Your task to perform on an android device: turn off data saver in the chrome app Image 0: 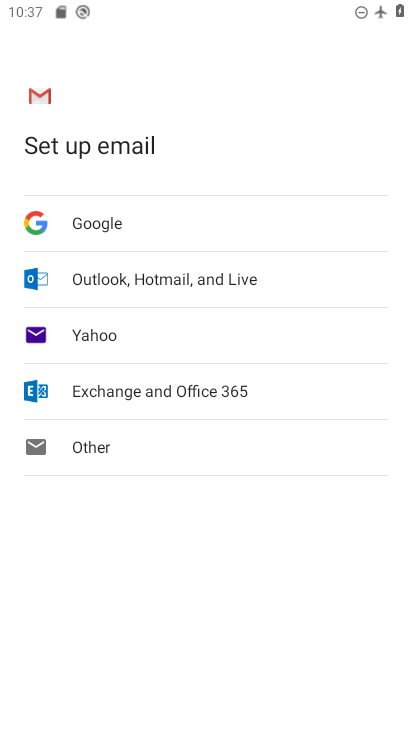
Step 0: drag from (263, 587) to (304, 277)
Your task to perform on an android device: turn off data saver in the chrome app Image 1: 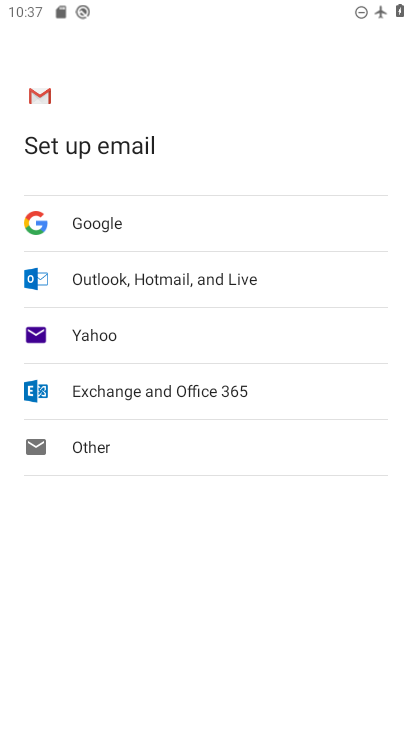
Step 1: press home button
Your task to perform on an android device: turn off data saver in the chrome app Image 2: 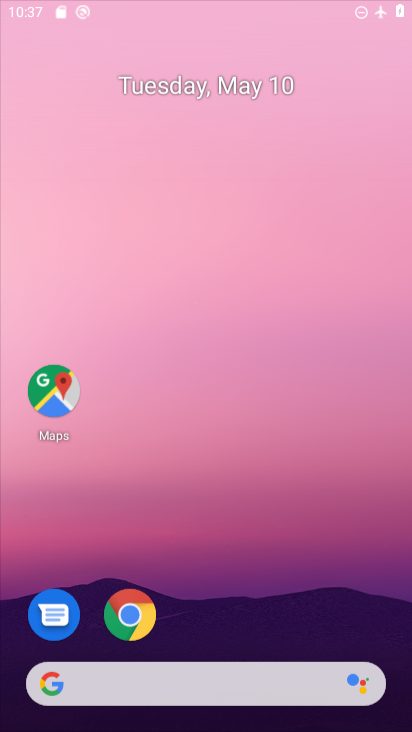
Step 2: drag from (193, 643) to (297, 165)
Your task to perform on an android device: turn off data saver in the chrome app Image 3: 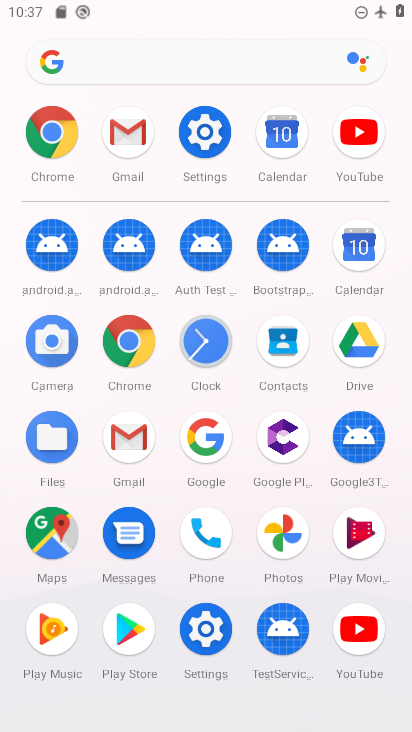
Step 3: click (135, 332)
Your task to perform on an android device: turn off data saver in the chrome app Image 4: 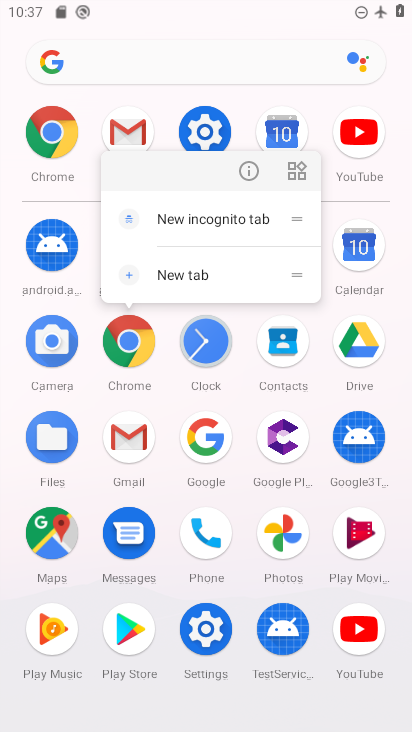
Step 4: click (244, 165)
Your task to perform on an android device: turn off data saver in the chrome app Image 5: 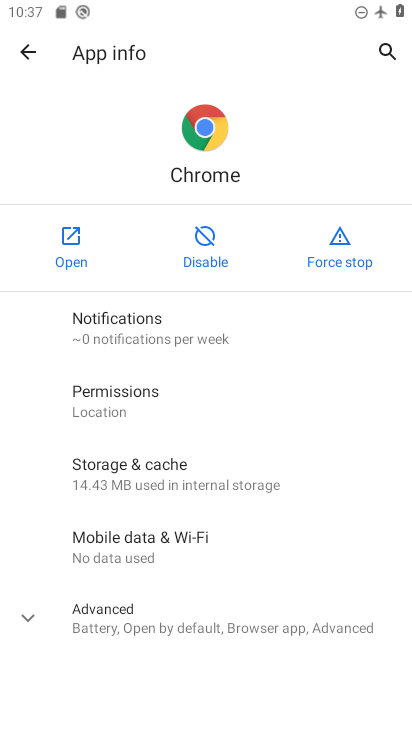
Step 5: click (78, 249)
Your task to perform on an android device: turn off data saver in the chrome app Image 6: 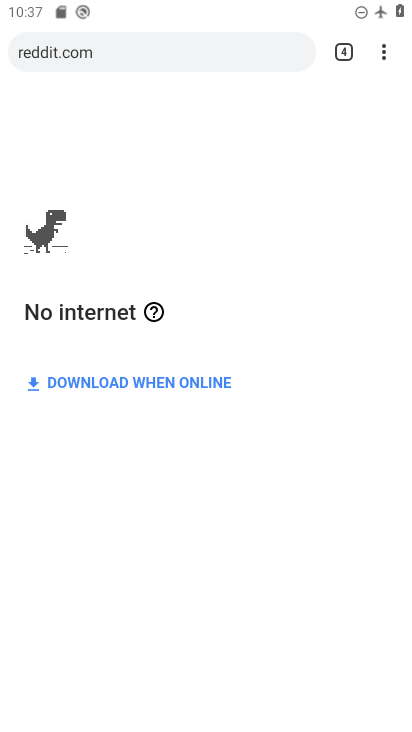
Step 6: click (381, 52)
Your task to perform on an android device: turn off data saver in the chrome app Image 7: 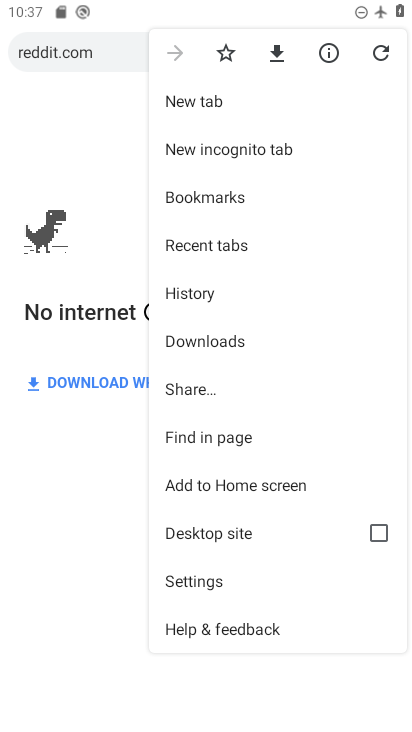
Step 7: click (210, 577)
Your task to perform on an android device: turn off data saver in the chrome app Image 8: 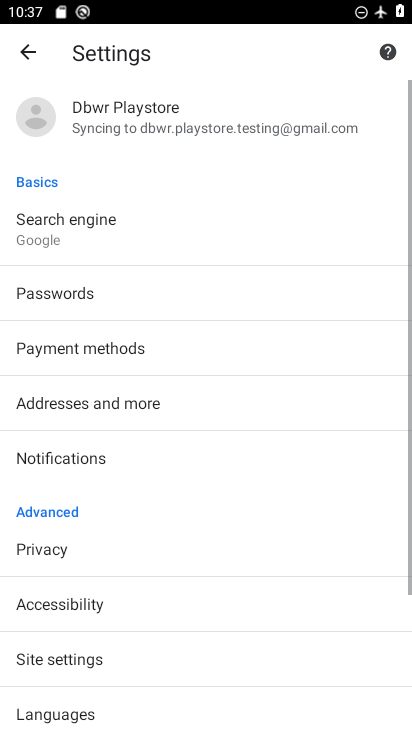
Step 8: drag from (213, 567) to (315, 80)
Your task to perform on an android device: turn off data saver in the chrome app Image 9: 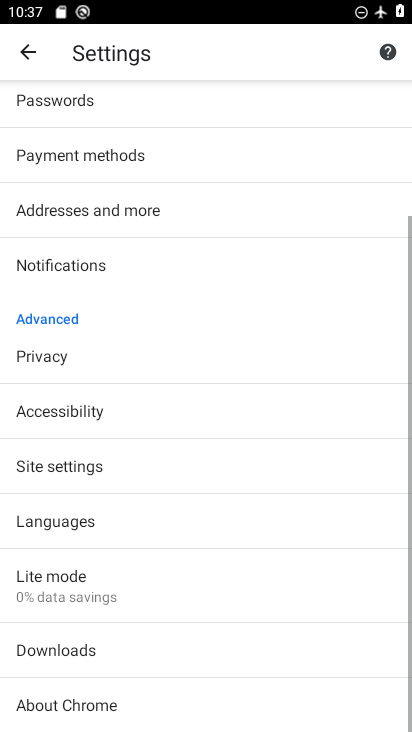
Step 9: click (89, 590)
Your task to perform on an android device: turn off data saver in the chrome app Image 10: 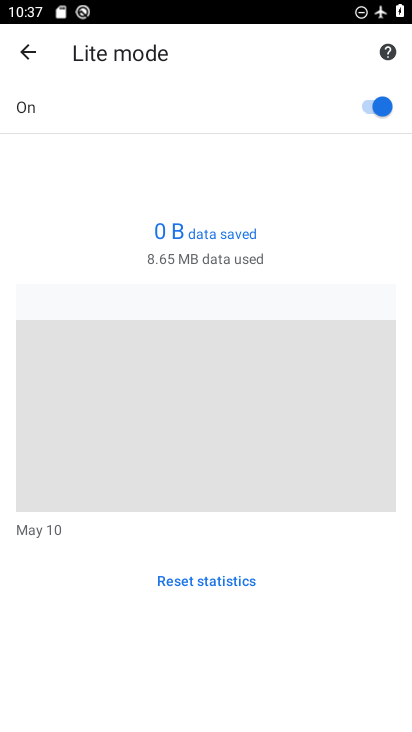
Step 10: drag from (282, 645) to (287, 283)
Your task to perform on an android device: turn off data saver in the chrome app Image 11: 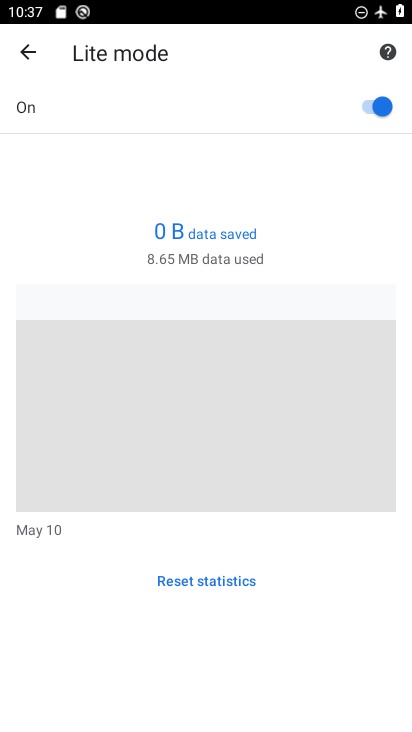
Step 11: click (384, 98)
Your task to perform on an android device: turn off data saver in the chrome app Image 12: 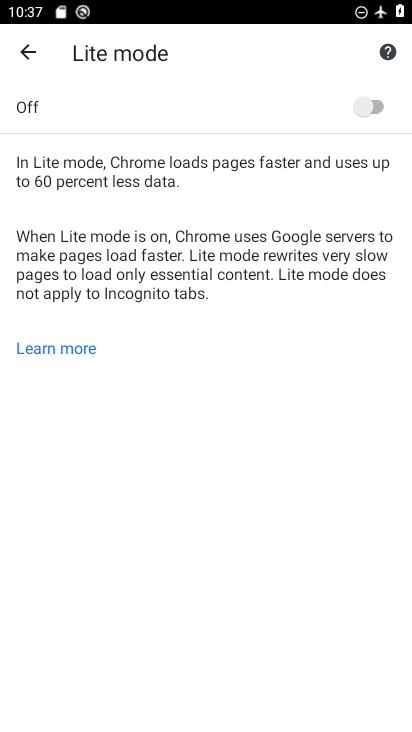
Step 12: task complete